Your task to perform on an android device: refresh tabs in the chrome app Image 0: 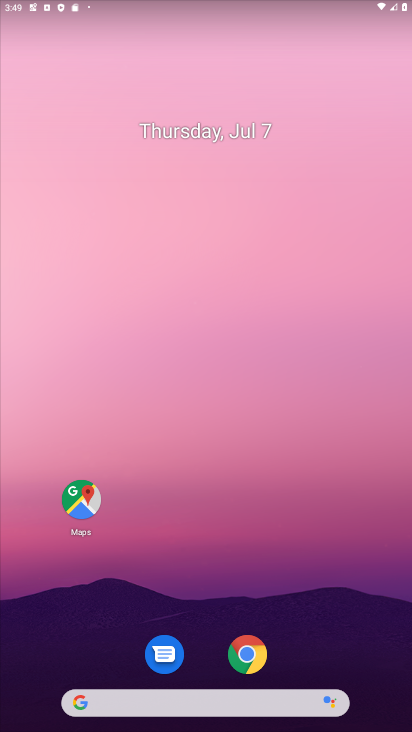
Step 0: click (248, 668)
Your task to perform on an android device: refresh tabs in the chrome app Image 1: 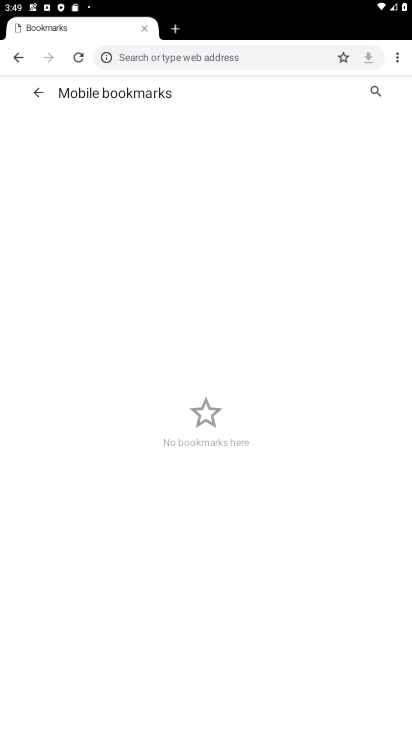
Step 1: click (78, 58)
Your task to perform on an android device: refresh tabs in the chrome app Image 2: 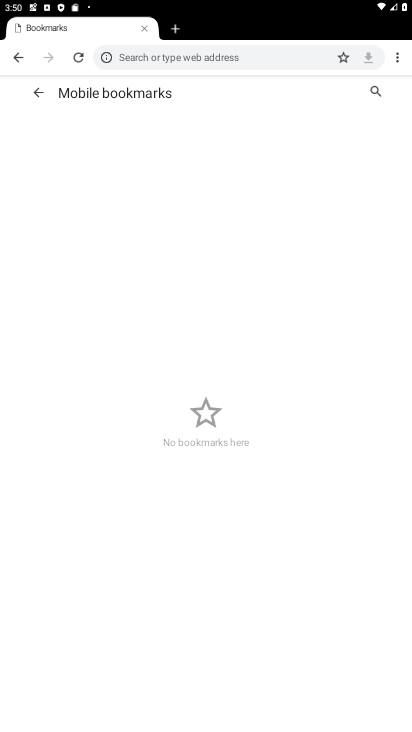
Step 2: task complete